Your task to perform on an android device: toggle notifications settings in the gmail app Image 0: 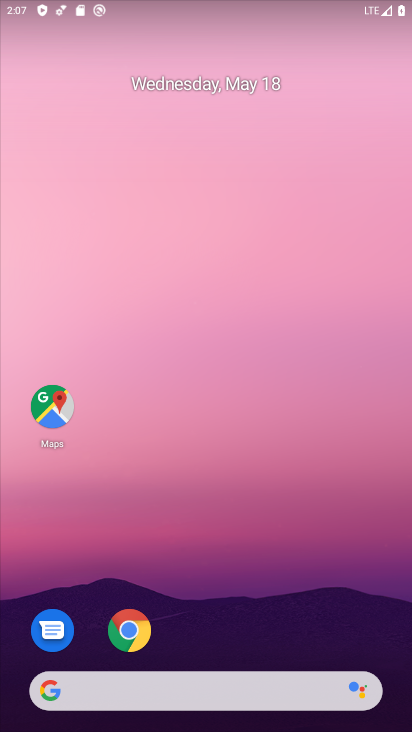
Step 0: drag from (214, 628) to (214, 235)
Your task to perform on an android device: toggle notifications settings in the gmail app Image 1: 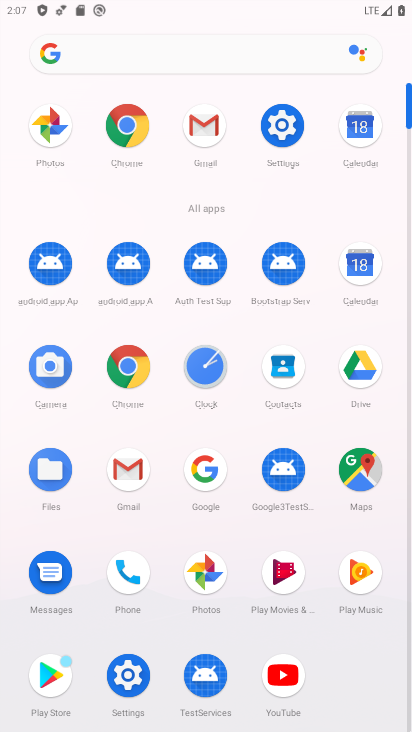
Step 1: click (191, 141)
Your task to perform on an android device: toggle notifications settings in the gmail app Image 2: 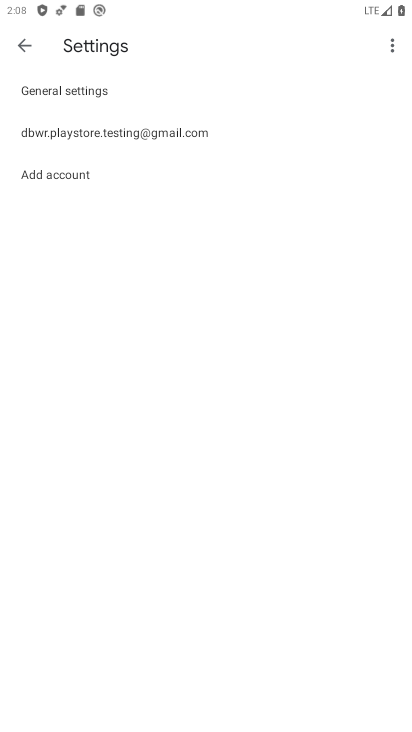
Step 2: click (196, 142)
Your task to perform on an android device: toggle notifications settings in the gmail app Image 3: 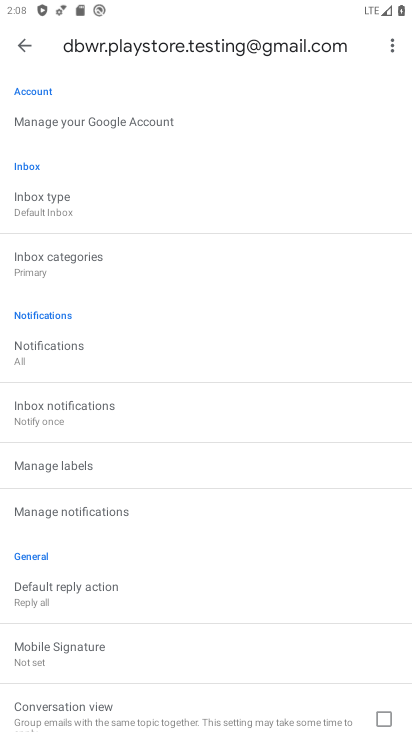
Step 3: click (145, 516)
Your task to perform on an android device: toggle notifications settings in the gmail app Image 4: 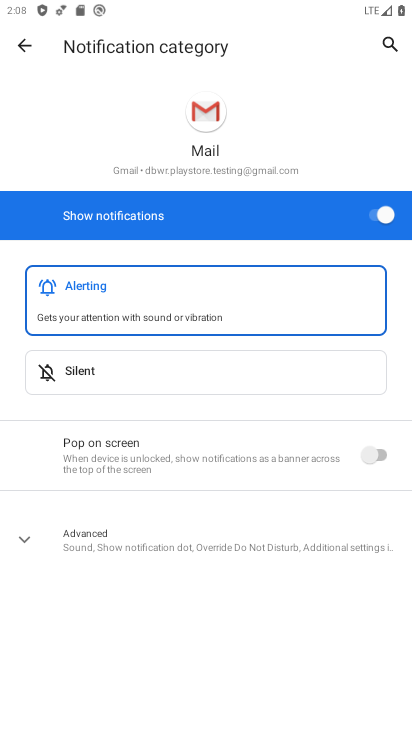
Step 4: click (361, 207)
Your task to perform on an android device: toggle notifications settings in the gmail app Image 5: 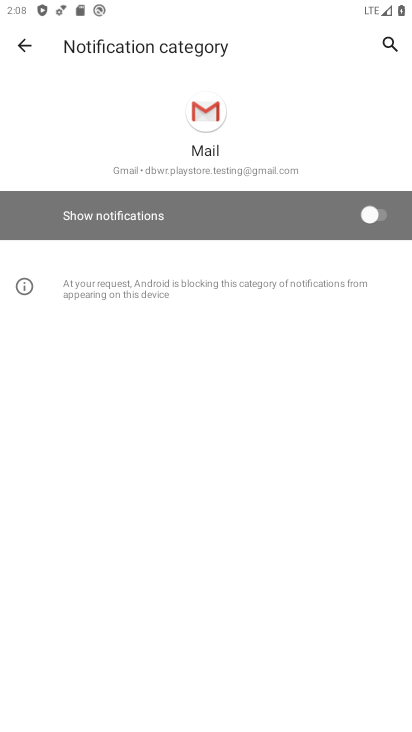
Step 5: task complete